Your task to perform on an android device: What is the recent news? Image 0: 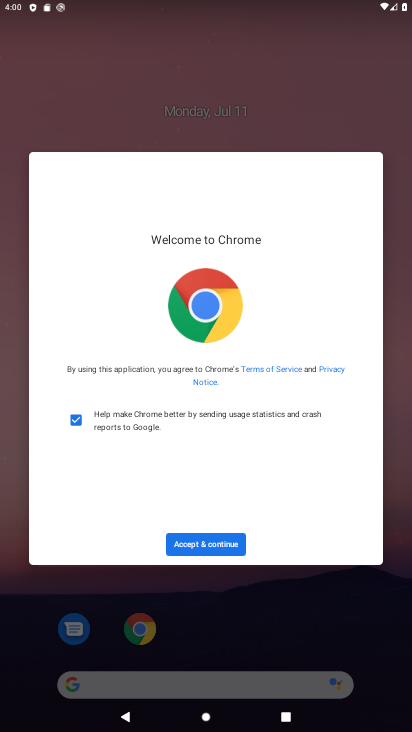
Step 0: click (217, 533)
Your task to perform on an android device: What is the recent news? Image 1: 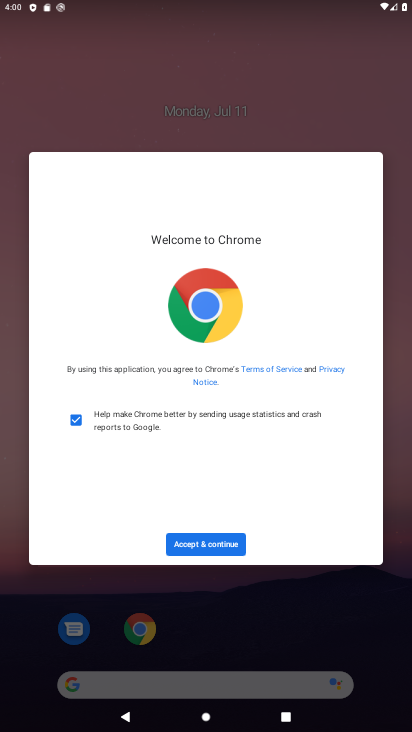
Step 1: press home button
Your task to perform on an android device: What is the recent news? Image 2: 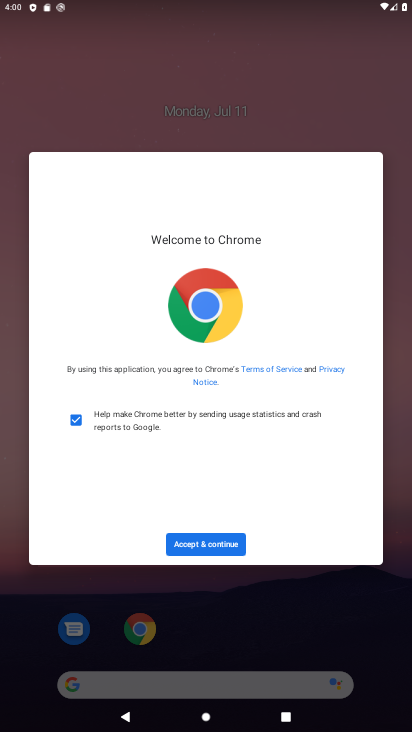
Step 2: press home button
Your task to perform on an android device: What is the recent news? Image 3: 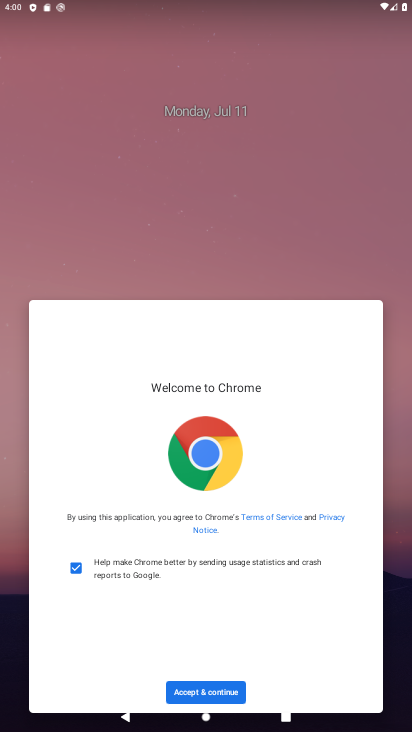
Step 3: drag from (232, 633) to (328, 64)
Your task to perform on an android device: What is the recent news? Image 4: 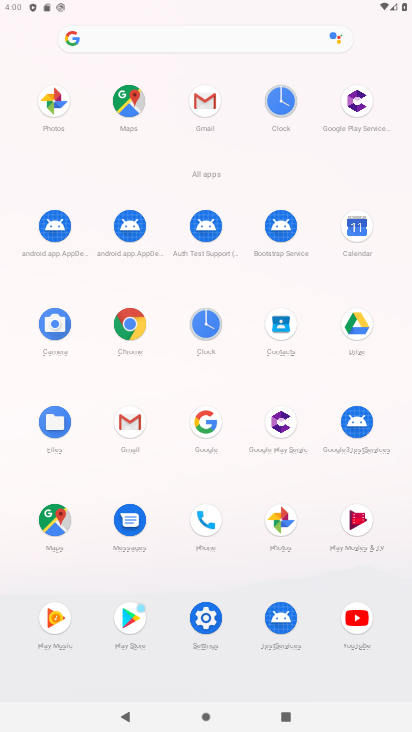
Step 4: click (197, 35)
Your task to perform on an android device: What is the recent news? Image 5: 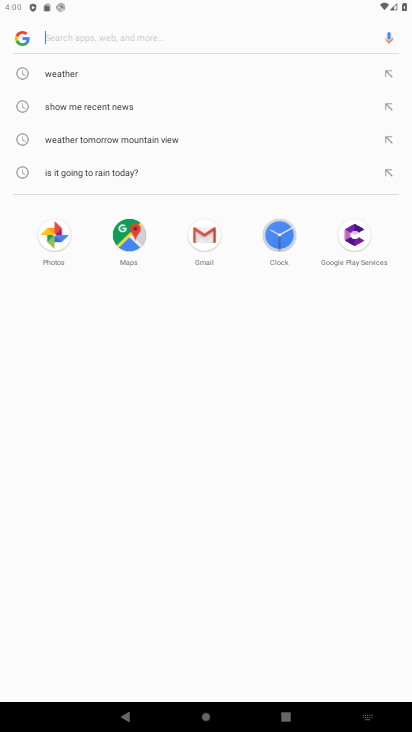
Step 5: type "recent news"
Your task to perform on an android device: What is the recent news? Image 6: 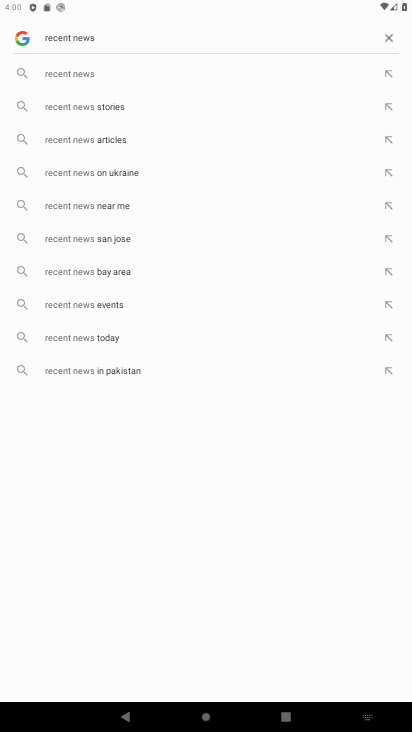
Step 6: click (80, 78)
Your task to perform on an android device: What is the recent news? Image 7: 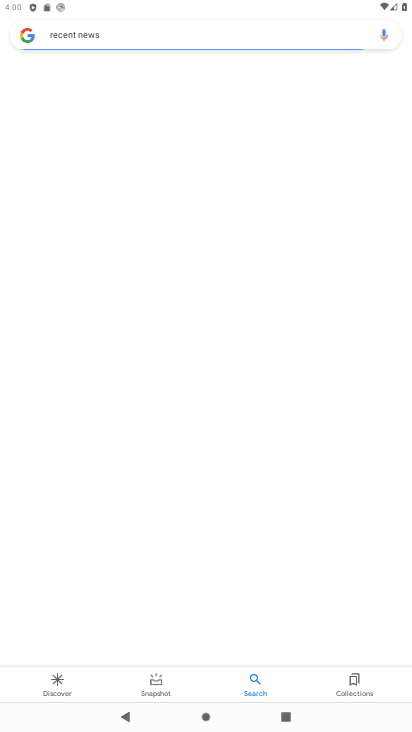
Step 7: drag from (214, 476) to (261, 317)
Your task to perform on an android device: What is the recent news? Image 8: 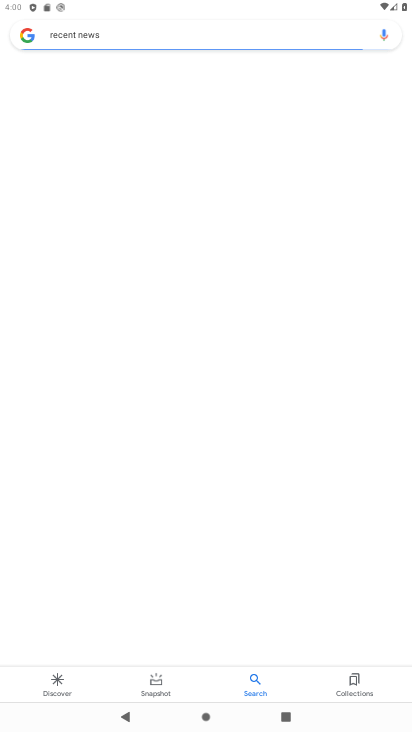
Step 8: drag from (179, 474) to (254, 205)
Your task to perform on an android device: What is the recent news? Image 9: 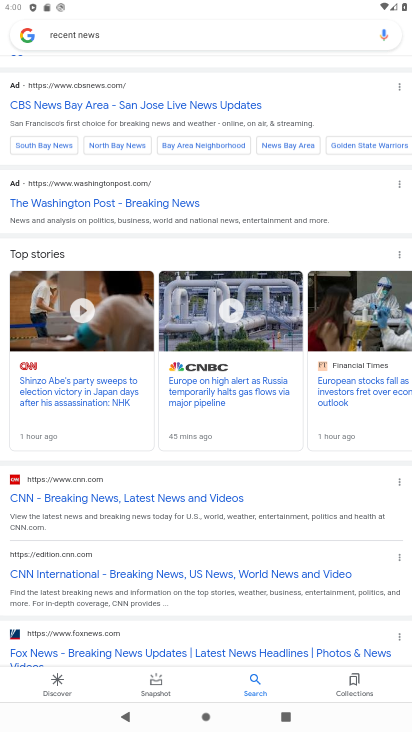
Step 9: drag from (171, 253) to (283, 708)
Your task to perform on an android device: What is the recent news? Image 10: 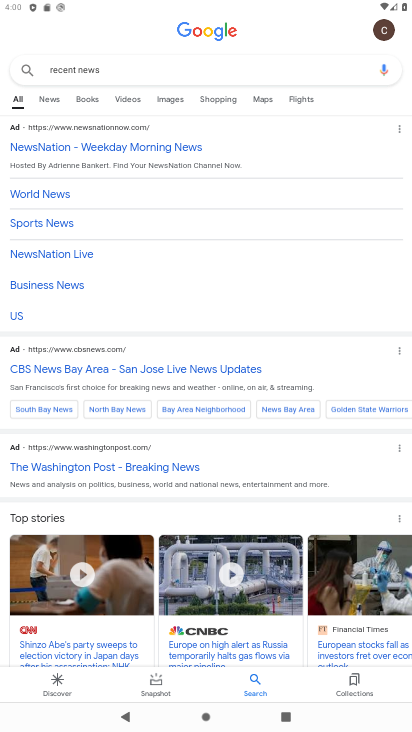
Step 10: drag from (153, 169) to (222, 383)
Your task to perform on an android device: What is the recent news? Image 11: 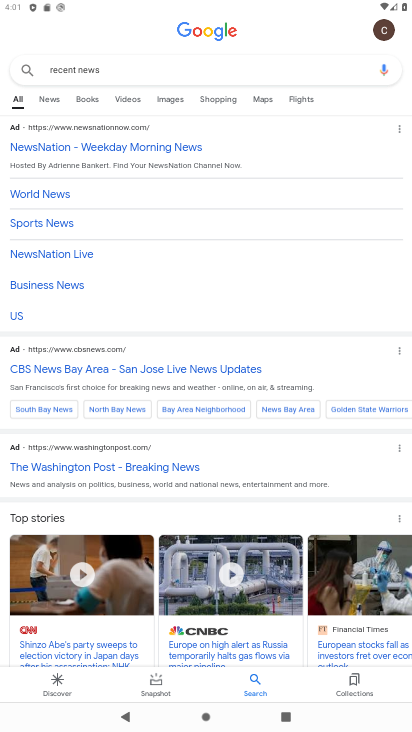
Step 11: drag from (312, 291) to (312, 632)
Your task to perform on an android device: What is the recent news? Image 12: 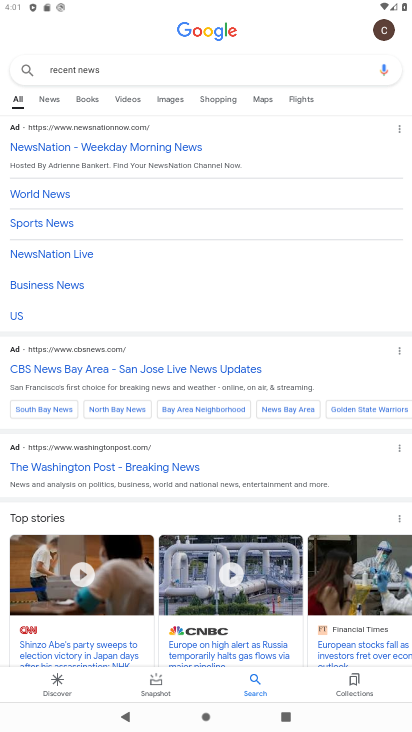
Step 12: drag from (242, 512) to (235, 87)
Your task to perform on an android device: What is the recent news? Image 13: 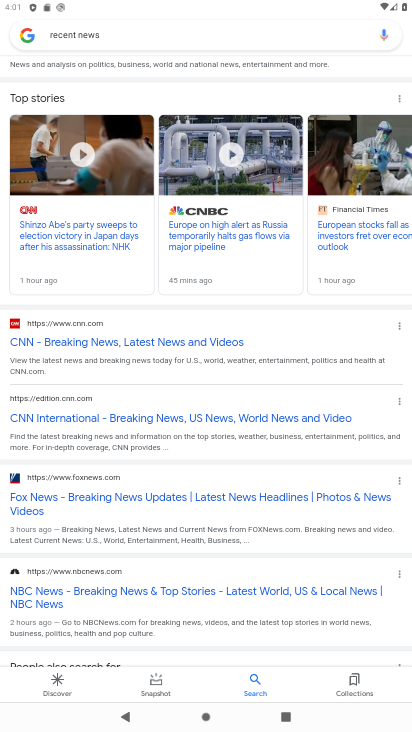
Step 13: drag from (158, 159) to (249, 731)
Your task to perform on an android device: What is the recent news? Image 14: 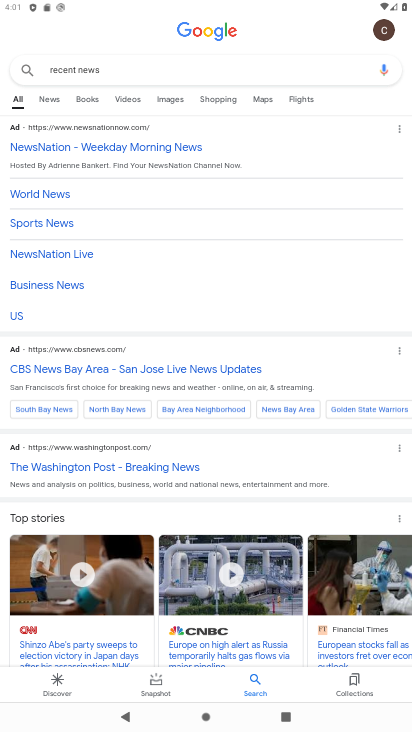
Step 14: drag from (208, 450) to (220, 297)
Your task to perform on an android device: What is the recent news? Image 15: 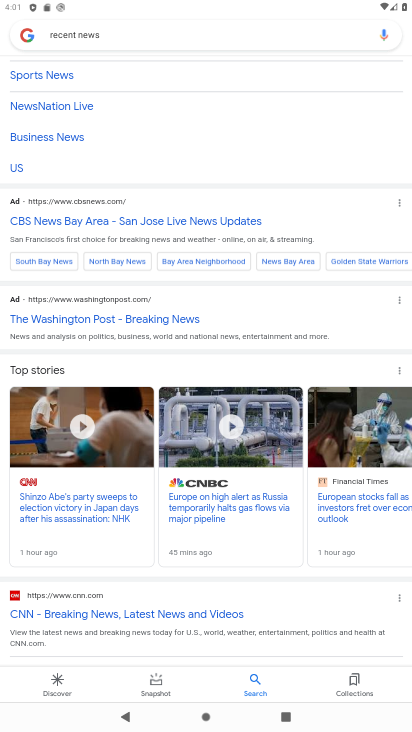
Step 15: drag from (230, 229) to (330, 702)
Your task to perform on an android device: What is the recent news? Image 16: 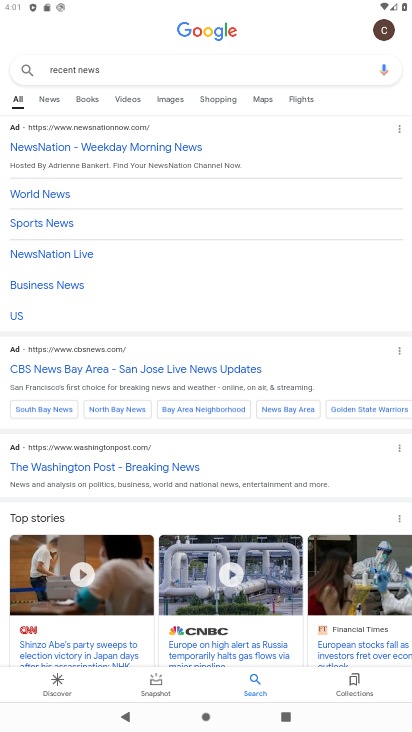
Step 16: click (80, 149)
Your task to perform on an android device: What is the recent news? Image 17: 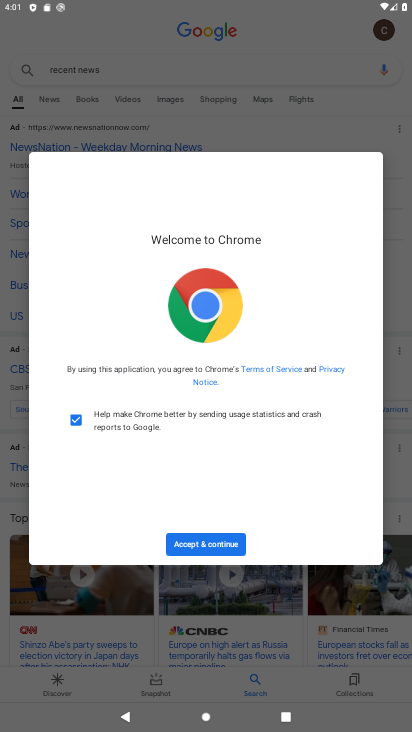
Step 17: click (403, 449)
Your task to perform on an android device: What is the recent news? Image 18: 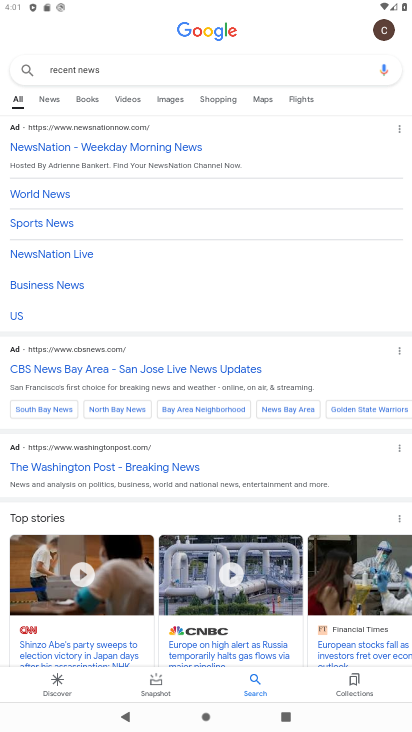
Step 18: click (319, 265)
Your task to perform on an android device: What is the recent news? Image 19: 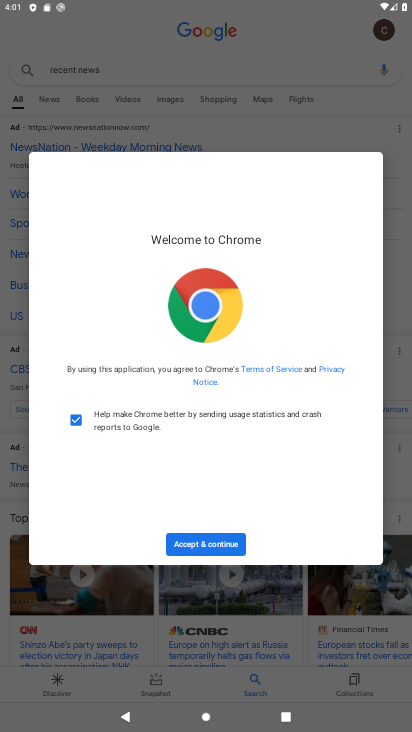
Step 19: task complete